Your task to perform on an android device: What is the recent news? Image 0: 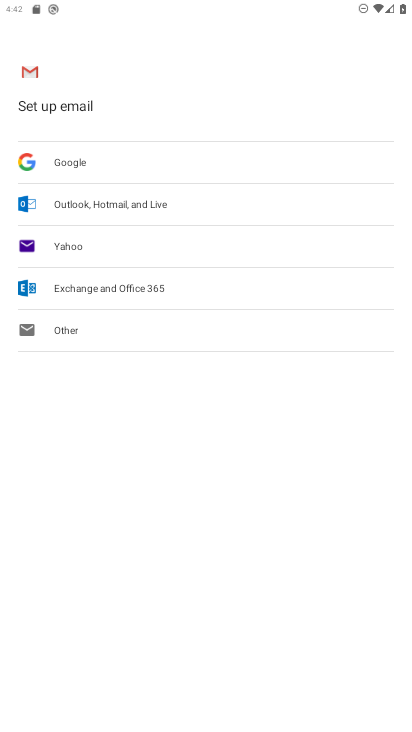
Step 0: press home button
Your task to perform on an android device: What is the recent news? Image 1: 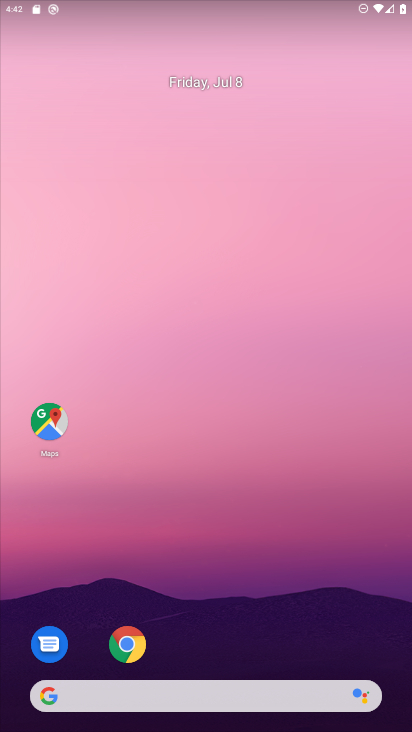
Step 1: click (131, 643)
Your task to perform on an android device: What is the recent news? Image 2: 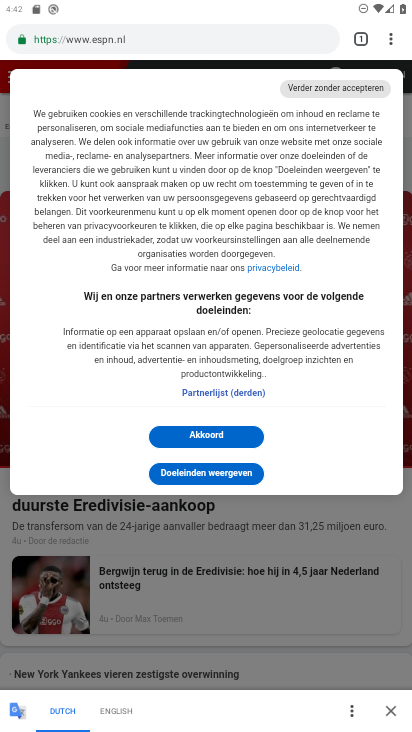
Step 2: click (173, 37)
Your task to perform on an android device: What is the recent news? Image 3: 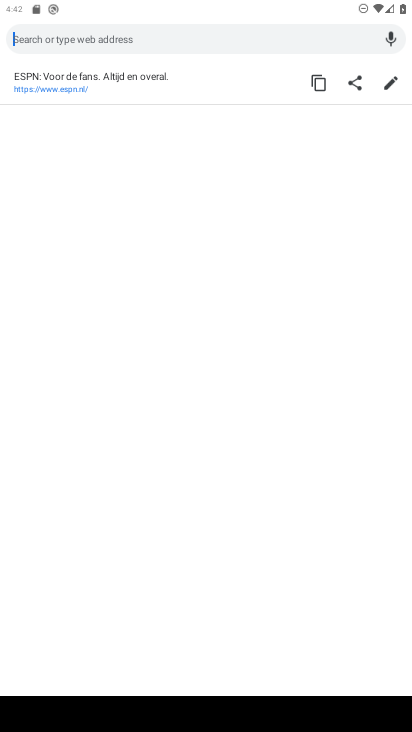
Step 3: type "news"
Your task to perform on an android device: What is the recent news? Image 4: 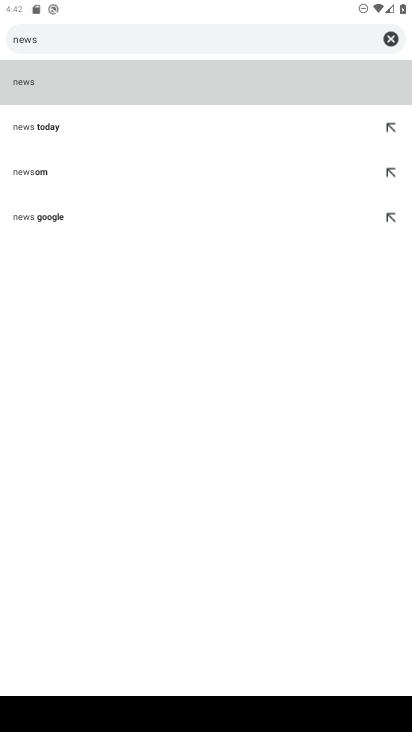
Step 4: click (18, 80)
Your task to perform on an android device: What is the recent news? Image 5: 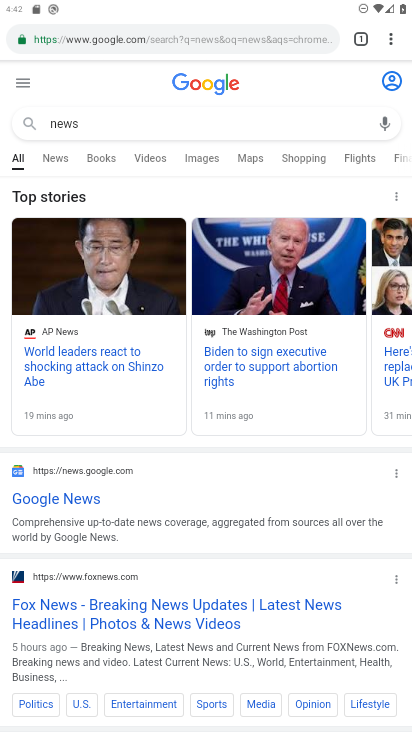
Step 5: click (77, 491)
Your task to perform on an android device: What is the recent news? Image 6: 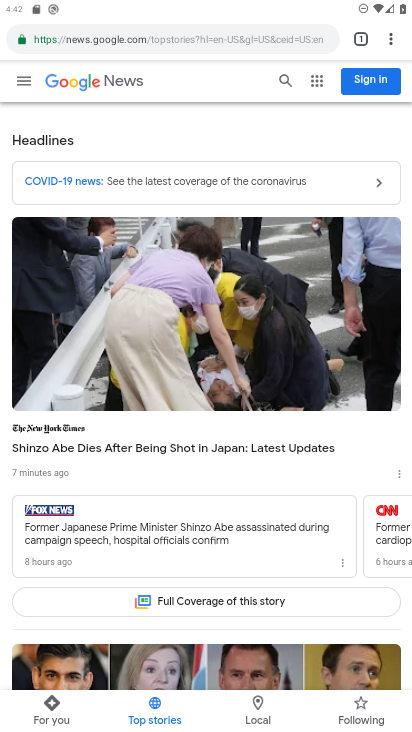
Step 6: task complete